Your task to perform on an android device: Go to Yahoo.com Image 0: 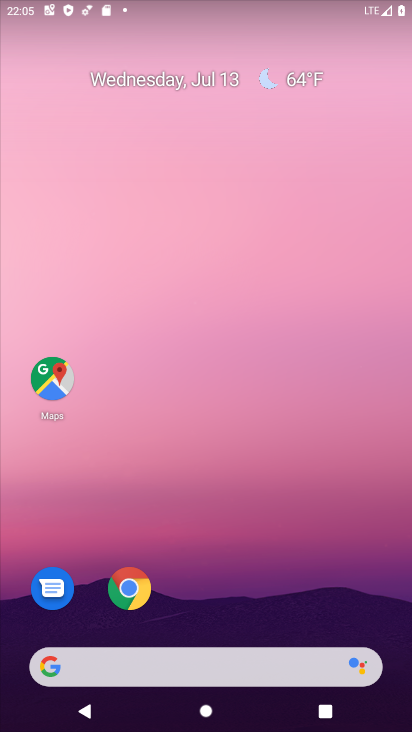
Step 0: click (144, 594)
Your task to perform on an android device: Go to Yahoo.com Image 1: 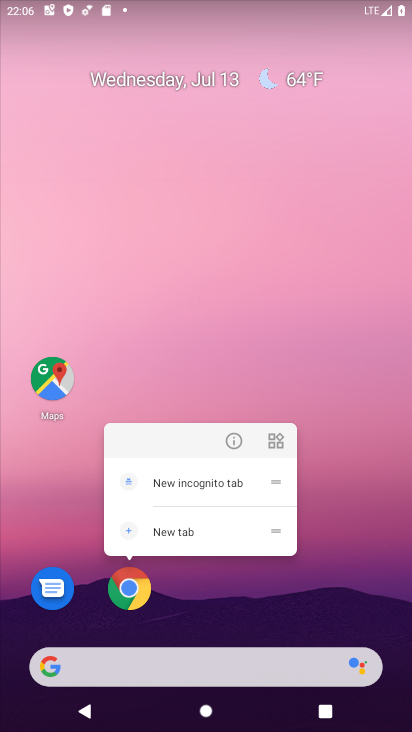
Step 1: click (103, 582)
Your task to perform on an android device: Go to Yahoo.com Image 2: 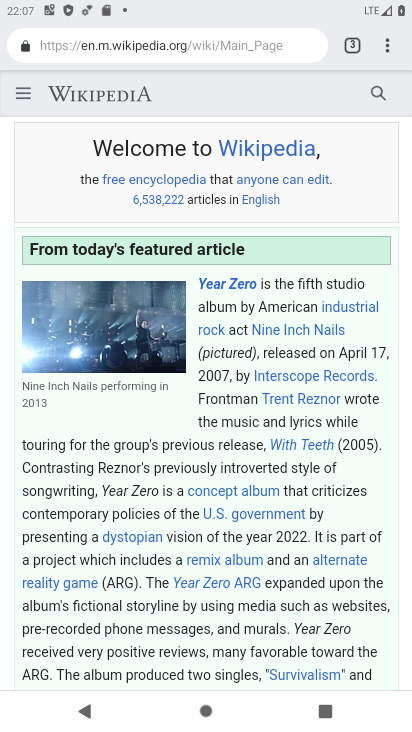
Step 2: click (357, 42)
Your task to perform on an android device: Go to Yahoo.com Image 3: 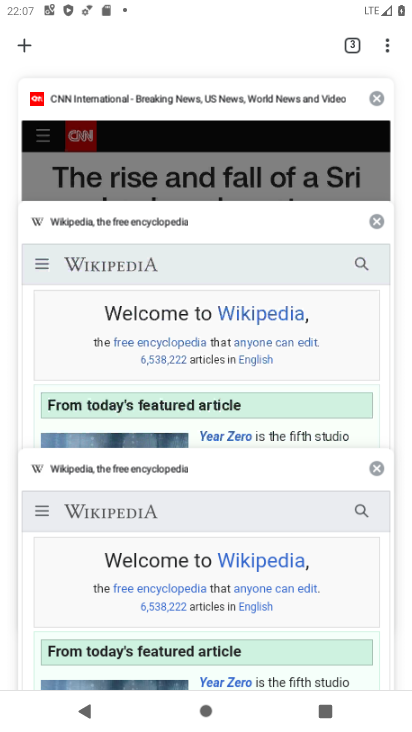
Step 3: click (17, 34)
Your task to perform on an android device: Go to Yahoo.com Image 4: 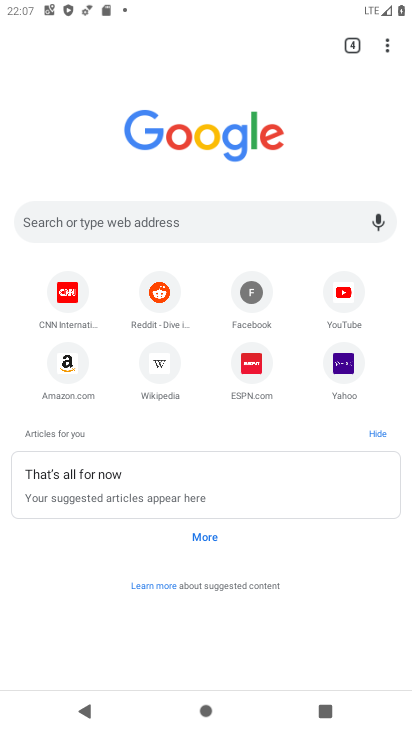
Step 4: click (350, 374)
Your task to perform on an android device: Go to Yahoo.com Image 5: 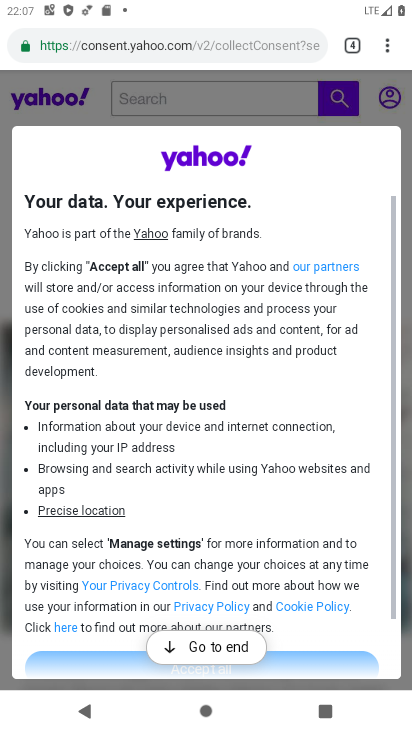
Step 5: task complete